Your task to perform on an android device: What's on my calendar today? Image 0: 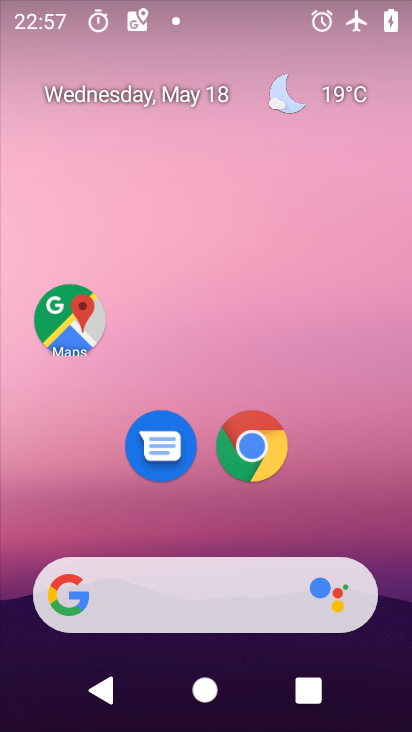
Step 0: press home button
Your task to perform on an android device: What's on my calendar today? Image 1: 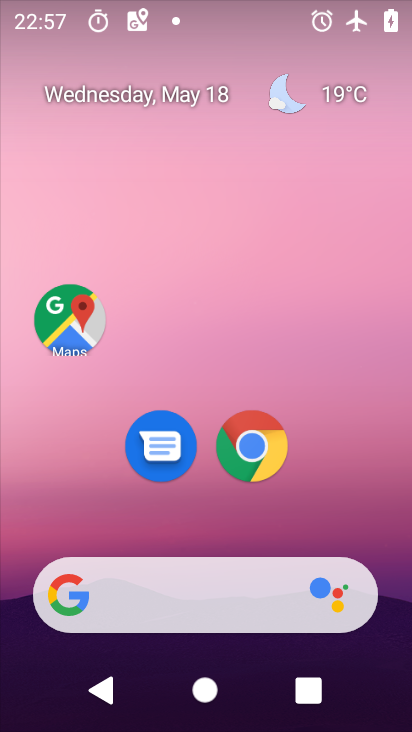
Step 1: drag from (236, 595) to (372, 98)
Your task to perform on an android device: What's on my calendar today? Image 2: 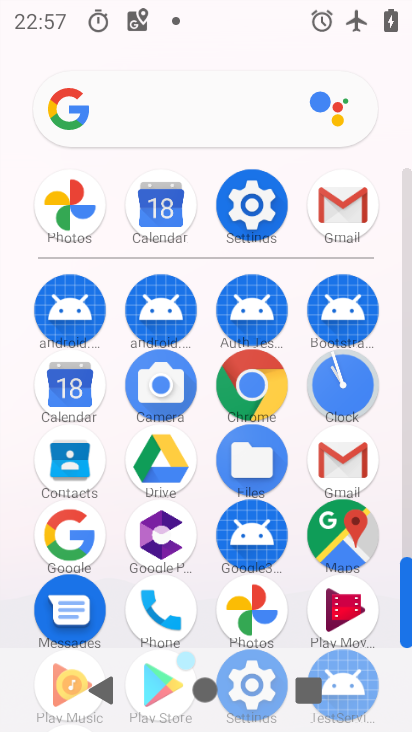
Step 2: click (166, 199)
Your task to perform on an android device: What's on my calendar today? Image 3: 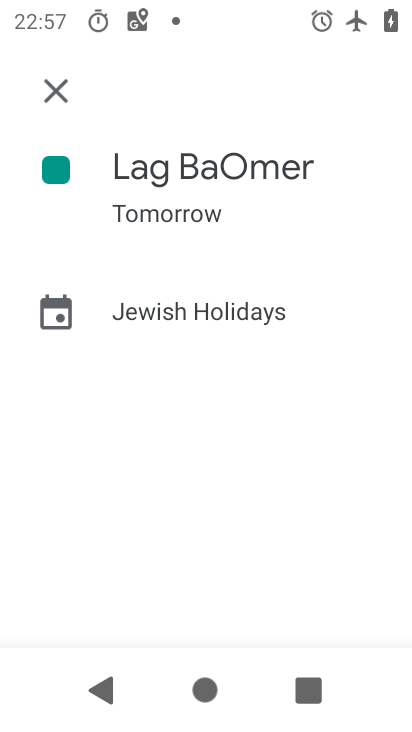
Step 3: click (58, 95)
Your task to perform on an android device: What's on my calendar today? Image 4: 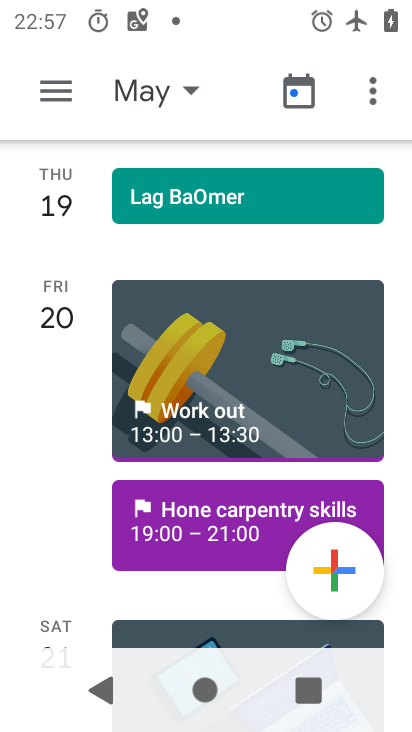
Step 4: click (156, 95)
Your task to perform on an android device: What's on my calendar today? Image 5: 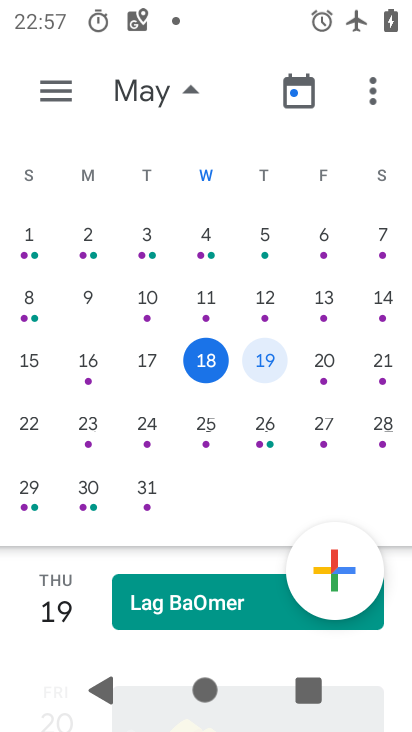
Step 5: click (211, 364)
Your task to perform on an android device: What's on my calendar today? Image 6: 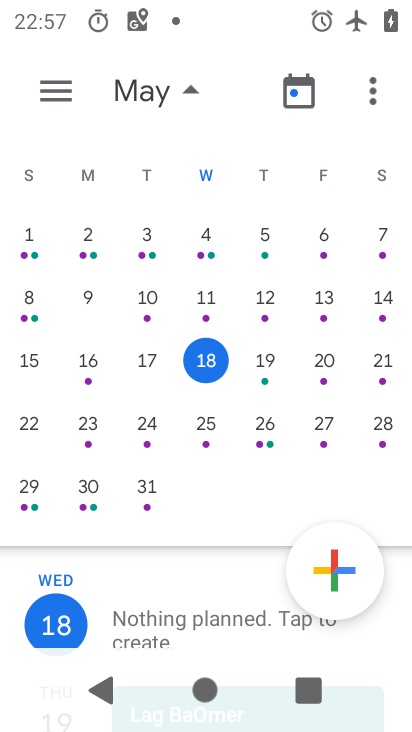
Step 6: click (65, 92)
Your task to perform on an android device: What's on my calendar today? Image 7: 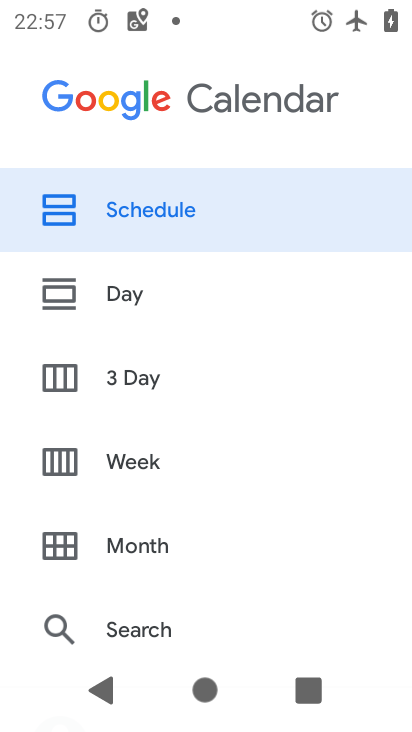
Step 7: click (145, 217)
Your task to perform on an android device: What's on my calendar today? Image 8: 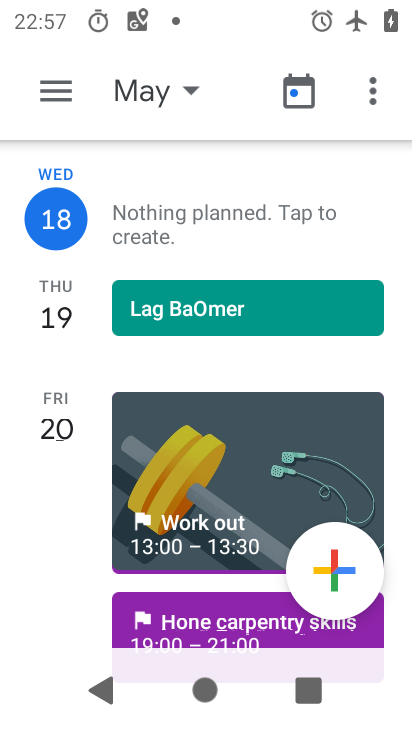
Step 8: task complete